Your task to perform on an android device: Clear all items from cart on ebay.com. Search for "logitech g502" on ebay.com, select the first entry, add it to the cart, then select checkout. Image 0: 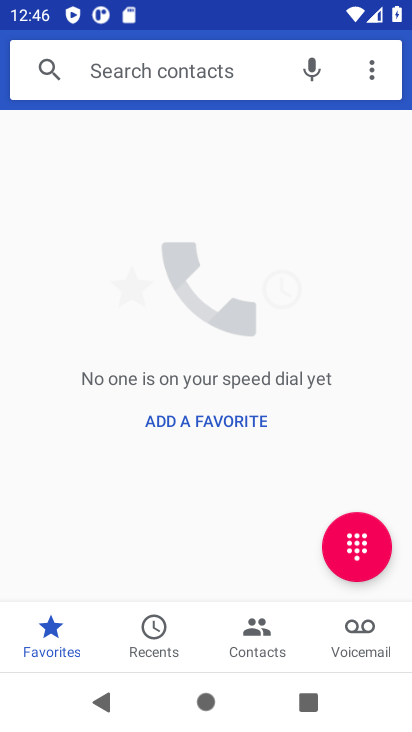
Step 0: press home button
Your task to perform on an android device: Clear all items from cart on ebay.com. Search for "logitech g502" on ebay.com, select the first entry, add it to the cart, then select checkout. Image 1: 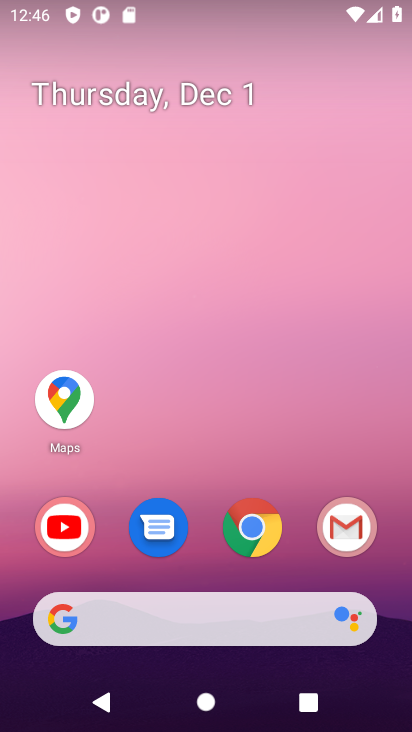
Step 1: click (247, 533)
Your task to perform on an android device: Clear all items from cart on ebay.com. Search for "logitech g502" on ebay.com, select the first entry, add it to the cart, then select checkout. Image 2: 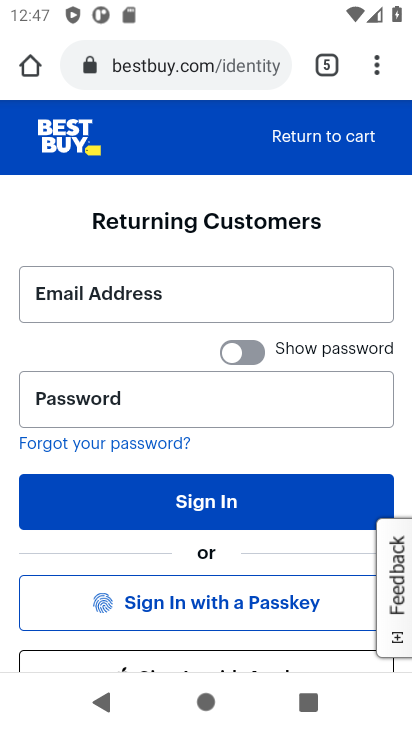
Step 2: click (149, 63)
Your task to perform on an android device: Clear all items from cart on ebay.com. Search for "logitech g502" on ebay.com, select the first entry, add it to the cart, then select checkout. Image 3: 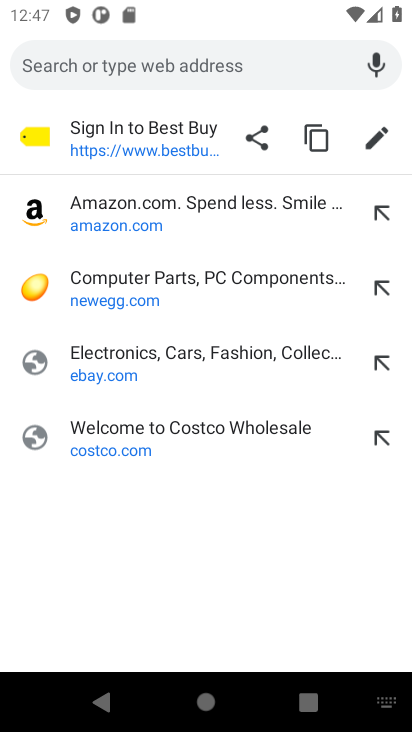
Step 3: click (81, 352)
Your task to perform on an android device: Clear all items from cart on ebay.com. Search for "logitech g502" on ebay.com, select the first entry, add it to the cart, then select checkout. Image 4: 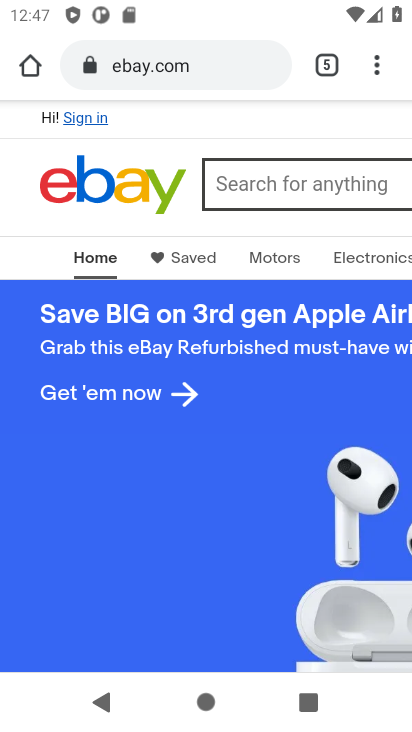
Step 4: drag from (291, 229) to (37, 238)
Your task to perform on an android device: Clear all items from cart on ebay.com. Search for "logitech g502" on ebay.com, select the first entry, add it to the cart, then select checkout. Image 5: 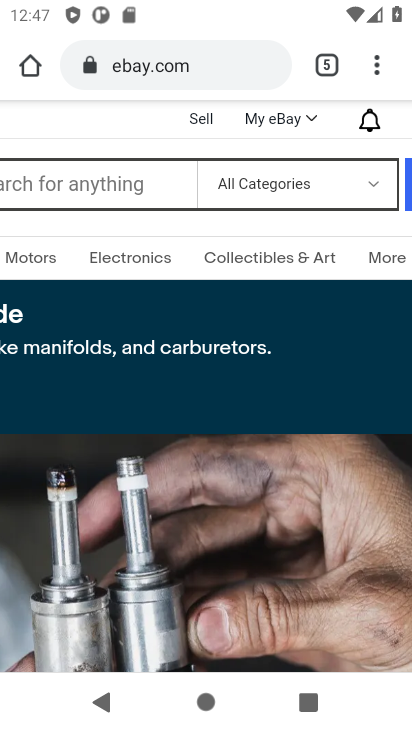
Step 5: drag from (359, 219) to (67, 197)
Your task to perform on an android device: Clear all items from cart on ebay.com. Search for "logitech g502" on ebay.com, select the first entry, add it to the cart, then select checkout. Image 6: 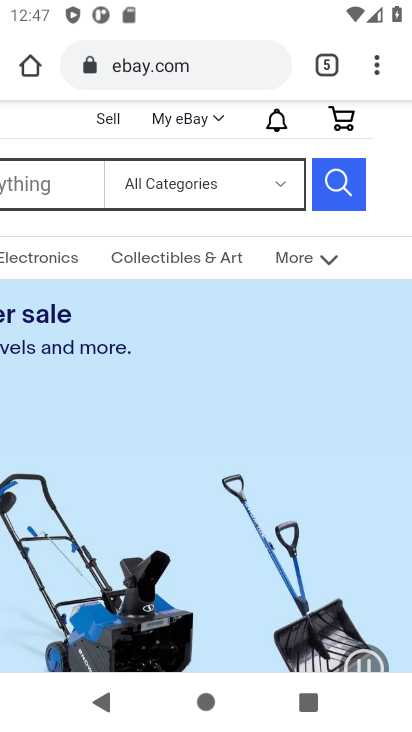
Step 6: click (347, 116)
Your task to perform on an android device: Clear all items from cart on ebay.com. Search for "logitech g502" on ebay.com, select the first entry, add it to the cart, then select checkout. Image 7: 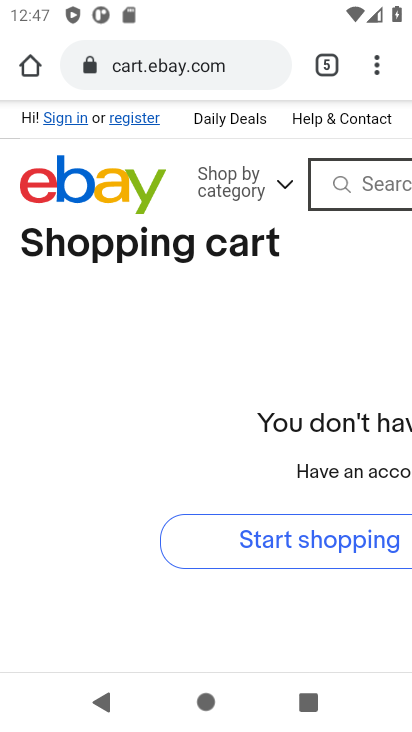
Step 7: click (330, 188)
Your task to perform on an android device: Clear all items from cart on ebay.com. Search for "logitech g502" on ebay.com, select the first entry, add it to the cart, then select checkout. Image 8: 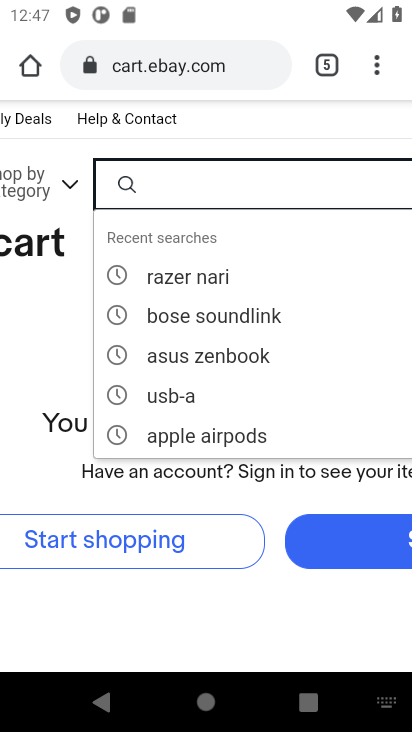
Step 8: type "logitech g502"
Your task to perform on an android device: Clear all items from cart on ebay.com. Search for "logitech g502" on ebay.com, select the first entry, add it to the cart, then select checkout. Image 9: 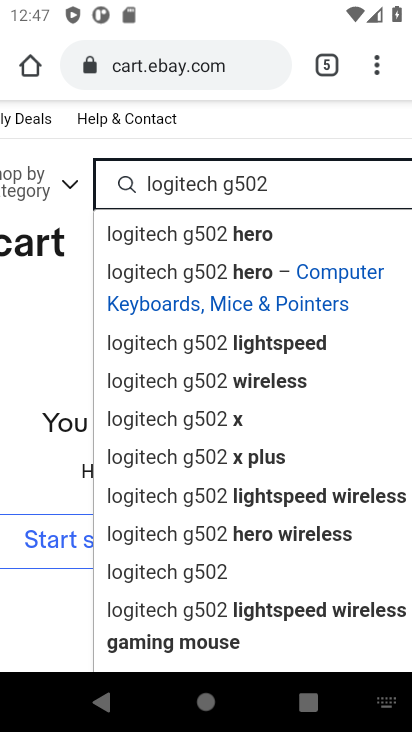
Step 9: click (235, 238)
Your task to perform on an android device: Clear all items from cart on ebay.com. Search for "logitech g502" on ebay.com, select the first entry, add it to the cart, then select checkout. Image 10: 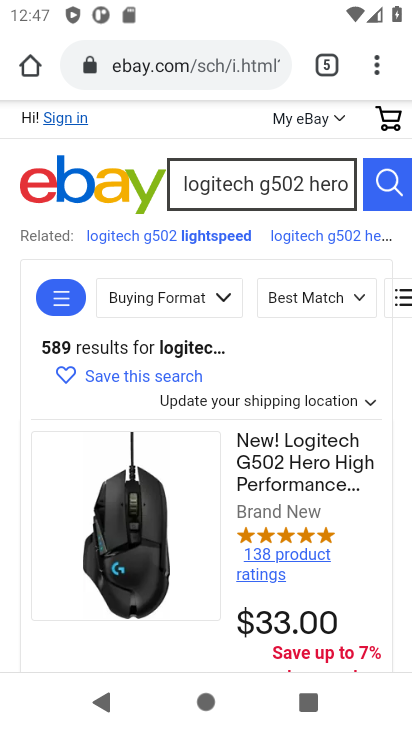
Step 10: click (268, 475)
Your task to perform on an android device: Clear all items from cart on ebay.com. Search for "logitech g502" on ebay.com, select the first entry, add it to the cart, then select checkout. Image 11: 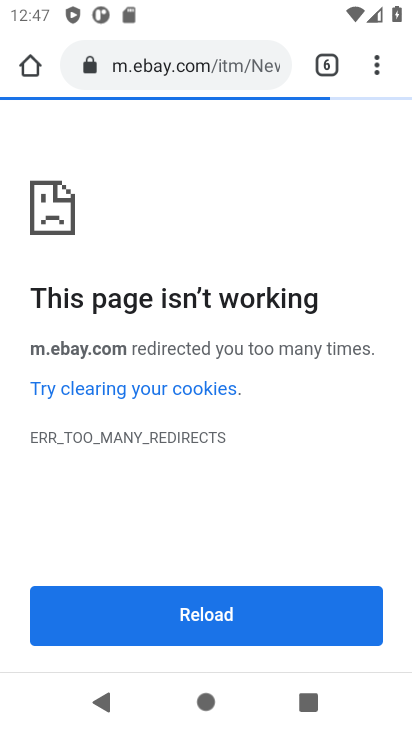
Step 11: task complete